Your task to perform on an android device: Go to Reddit.com Image 0: 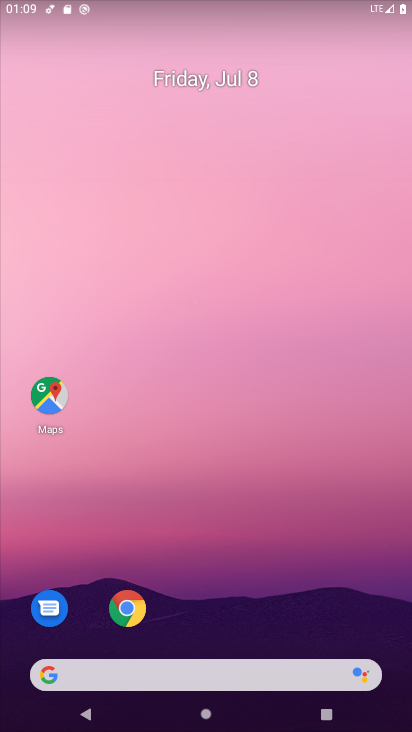
Step 0: drag from (203, 652) to (203, 134)
Your task to perform on an android device: Go to Reddit.com Image 1: 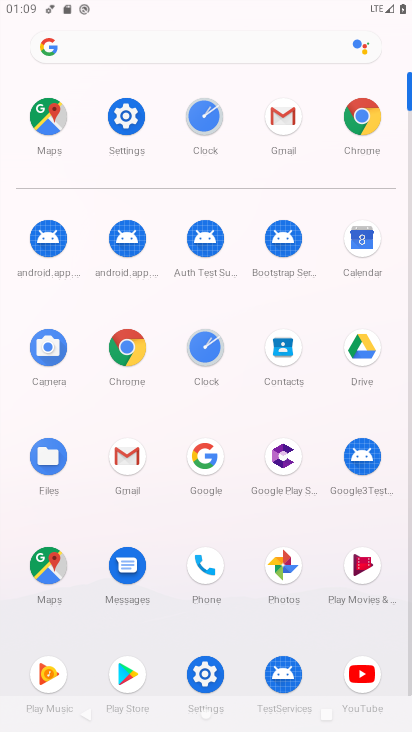
Step 1: click (122, 350)
Your task to perform on an android device: Go to Reddit.com Image 2: 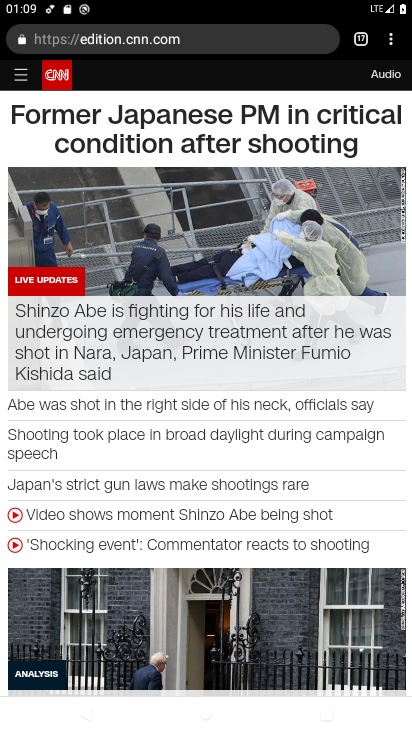
Step 2: click (403, 39)
Your task to perform on an android device: Go to Reddit.com Image 3: 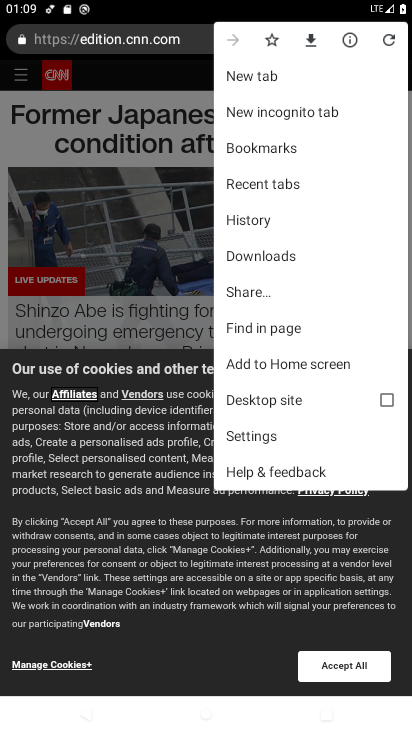
Step 3: click (266, 73)
Your task to perform on an android device: Go to Reddit.com Image 4: 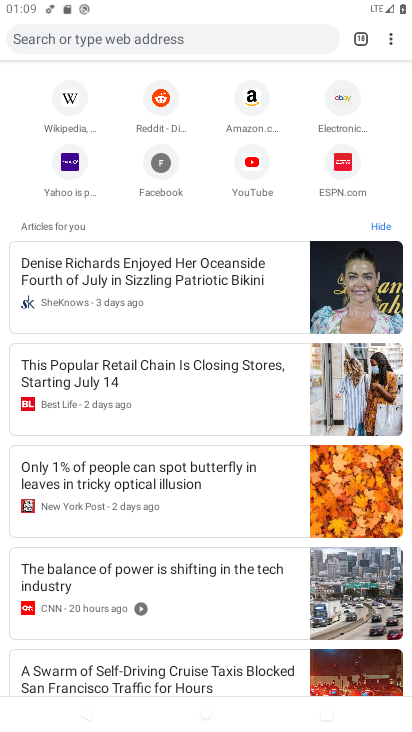
Step 4: click (161, 96)
Your task to perform on an android device: Go to Reddit.com Image 5: 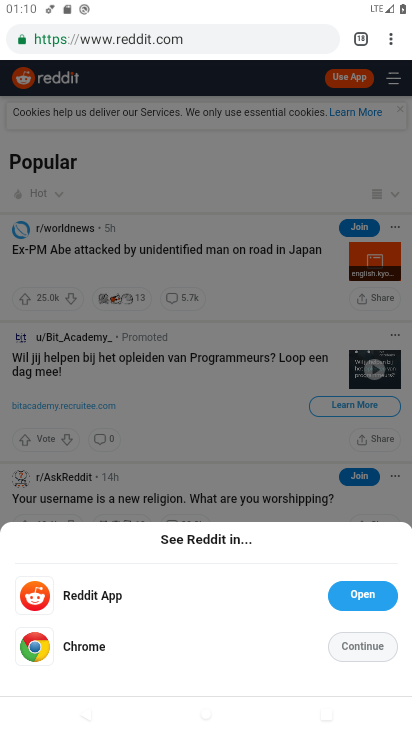
Step 5: click (357, 588)
Your task to perform on an android device: Go to Reddit.com Image 6: 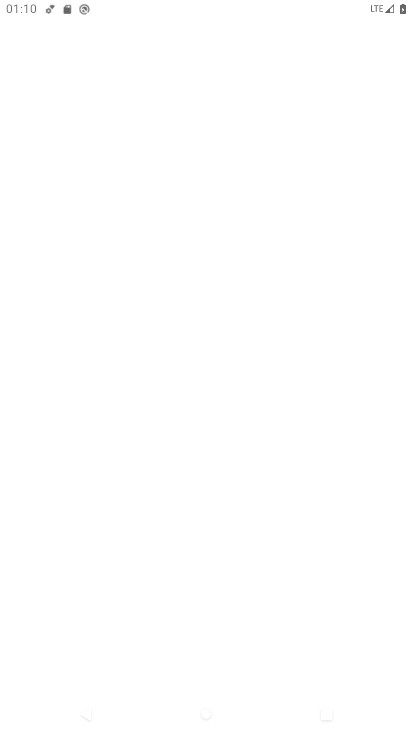
Step 6: task complete